Your task to perform on an android device: toggle show notifications on the lock screen Image 0: 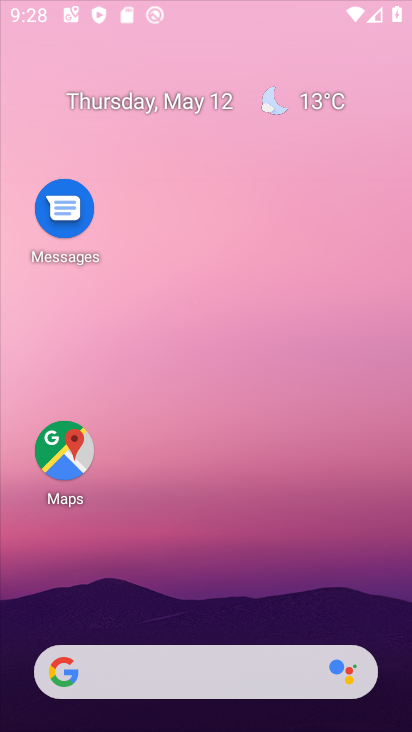
Step 0: drag from (206, 606) to (138, 19)
Your task to perform on an android device: toggle show notifications on the lock screen Image 1: 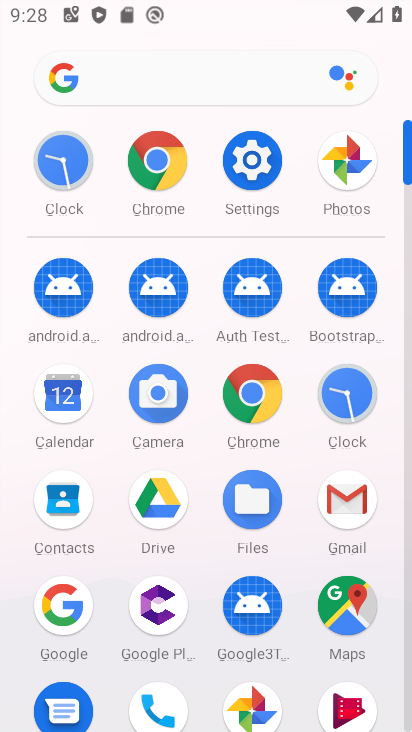
Step 1: click (239, 174)
Your task to perform on an android device: toggle show notifications on the lock screen Image 2: 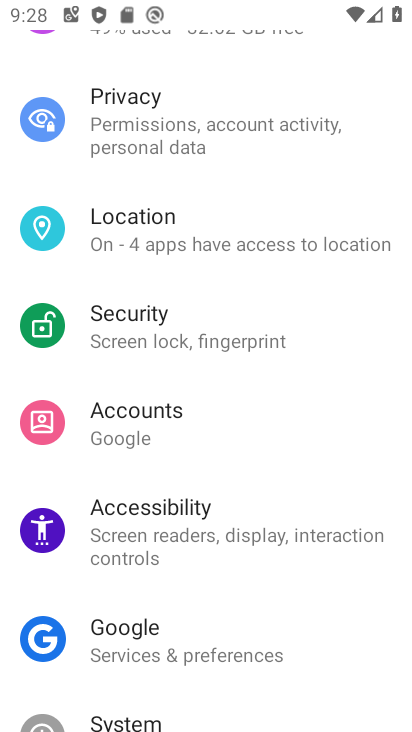
Step 2: drag from (177, 201) to (185, 649)
Your task to perform on an android device: toggle show notifications on the lock screen Image 3: 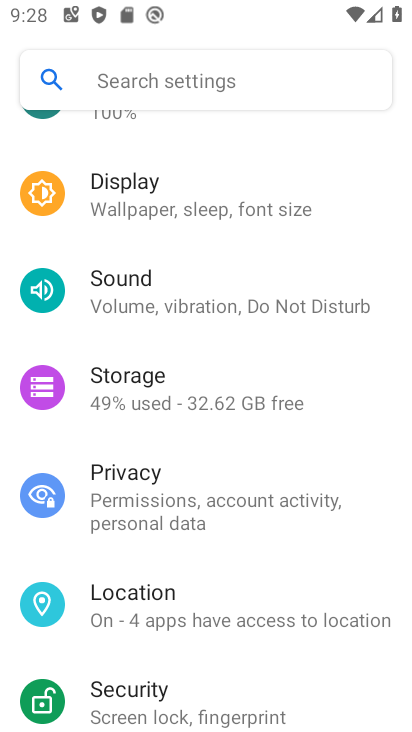
Step 3: drag from (204, 196) to (170, 716)
Your task to perform on an android device: toggle show notifications on the lock screen Image 4: 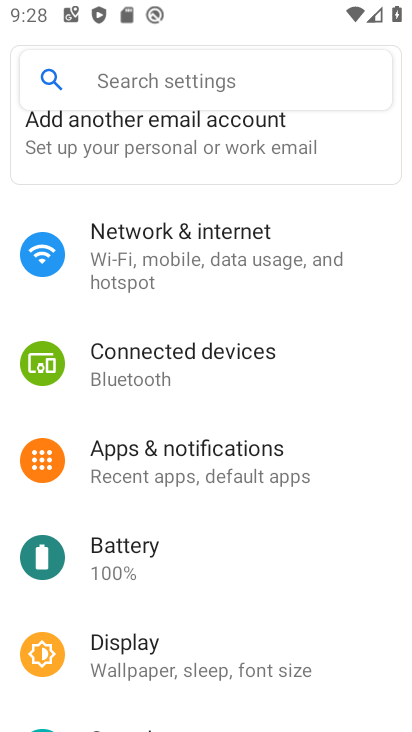
Step 4: click (196, 463)
Your task to perform on an android device: toggle show notifications on the lock screen Image 5: 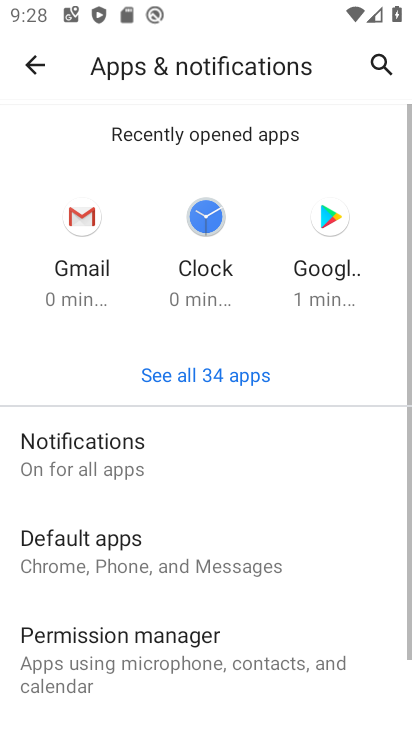
Step 5: drag from (229, 607) to (216, 351)
Your task to perform on an android device: toggle show notifications on the lock screen Image 6: 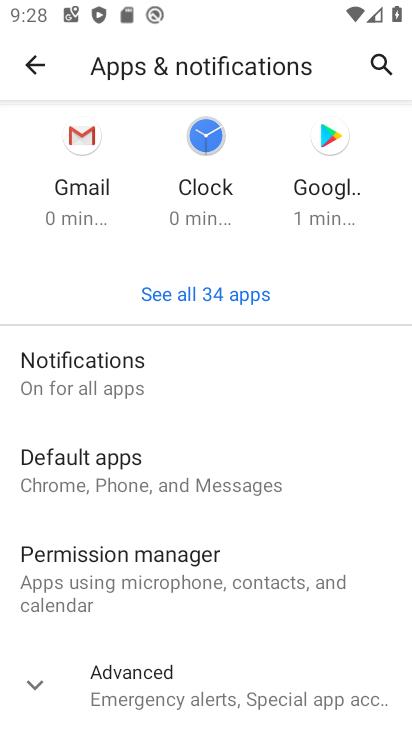
Step 6: click (193, 683)
Your task to perform on an android device: toggle show notifications on the lock screen Image 7: 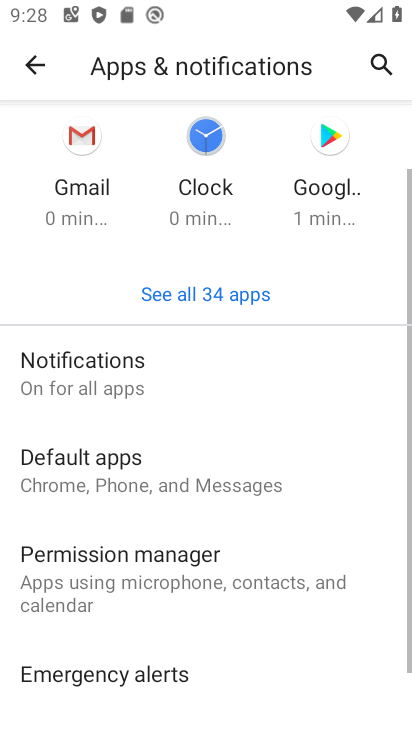
Step 7: click (116, 391)
Your task to perform on an android device: toggle show notifications on the lock screen Image 8: 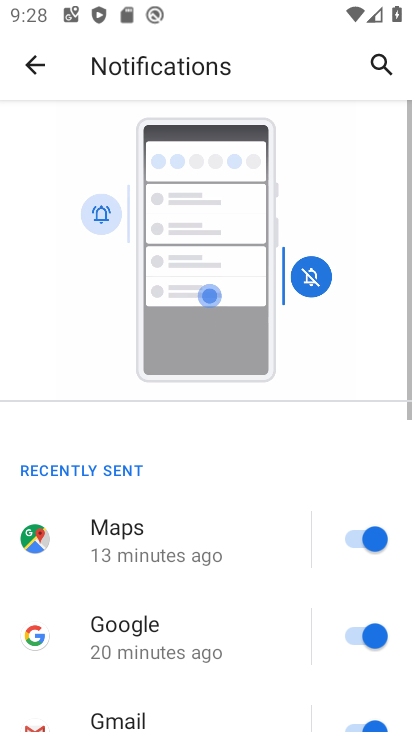
Step 8: drag from (185, 672) to (188, 16)
Your task to perform on an android device: toggle show notifications on the lock screen Image 9: 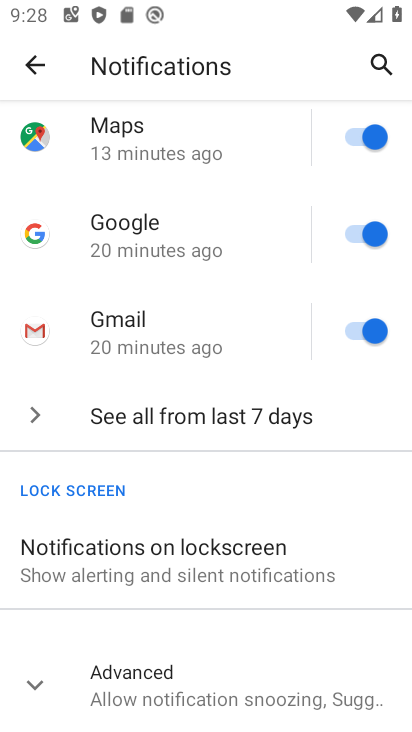
Step 9: click (218, 544)
Your task to perform on an android device: toggle show notifications on the lock screen Image 10: 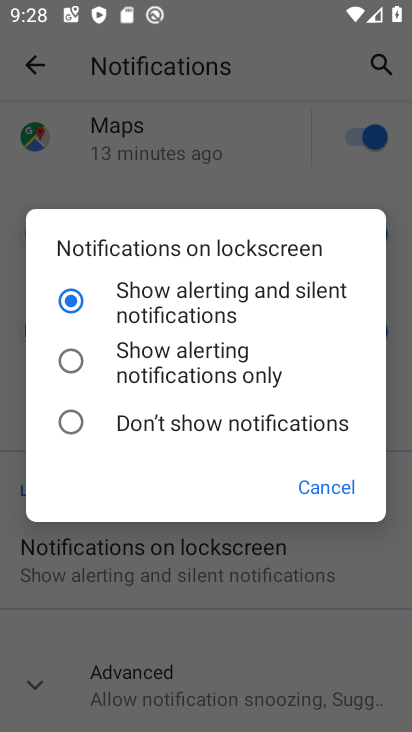
Step 10: task complete